Your task to perform on an android device: open app "Reddit" Image 0: 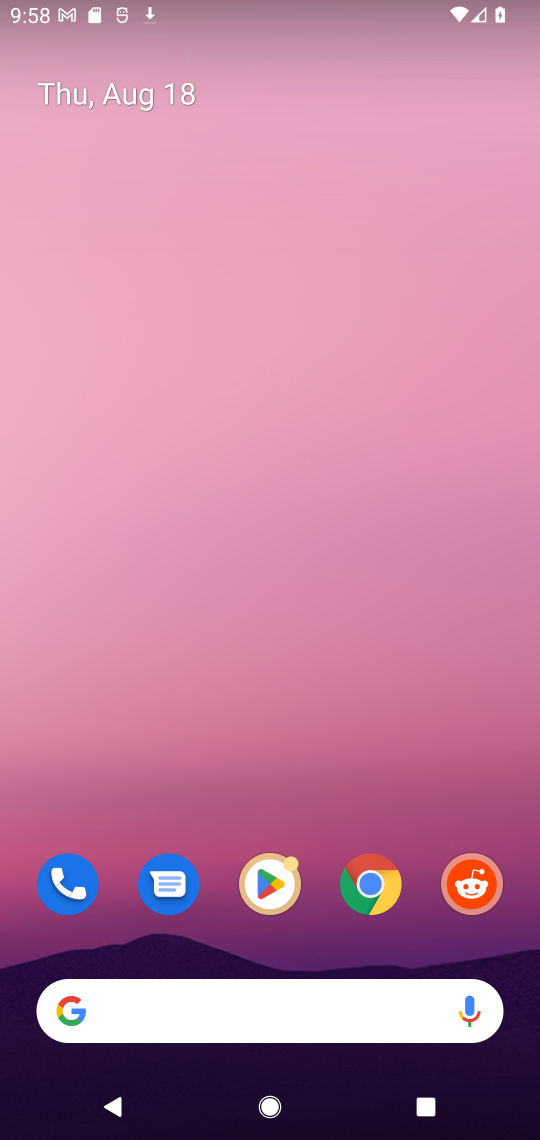
Step 0: click (270, 918)
Your task to perform on an android device: open app "Reddit" Image 1: 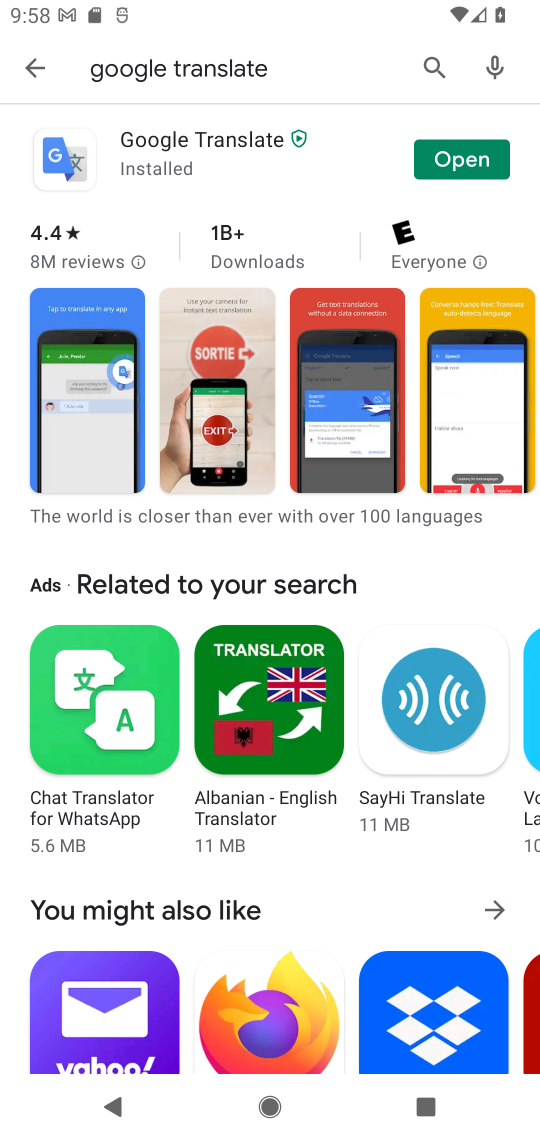
Step 1: click (441, 74)
Your task to perform on an android device: open app "Reddit" Image 2: 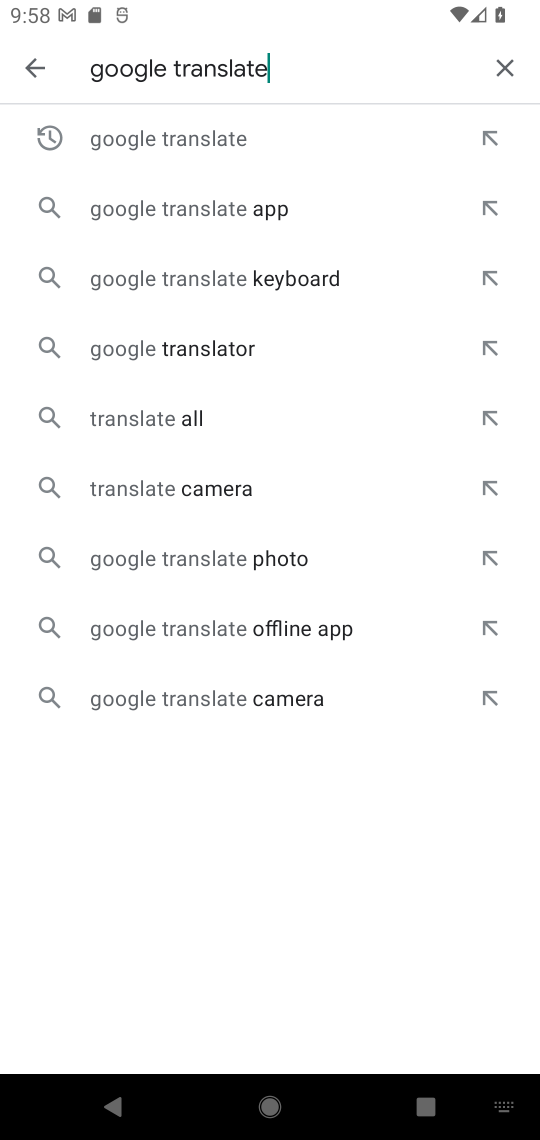
Step 2: click (498, 82)
Your task to perform on an android device: open app "Reddit" Image 3: 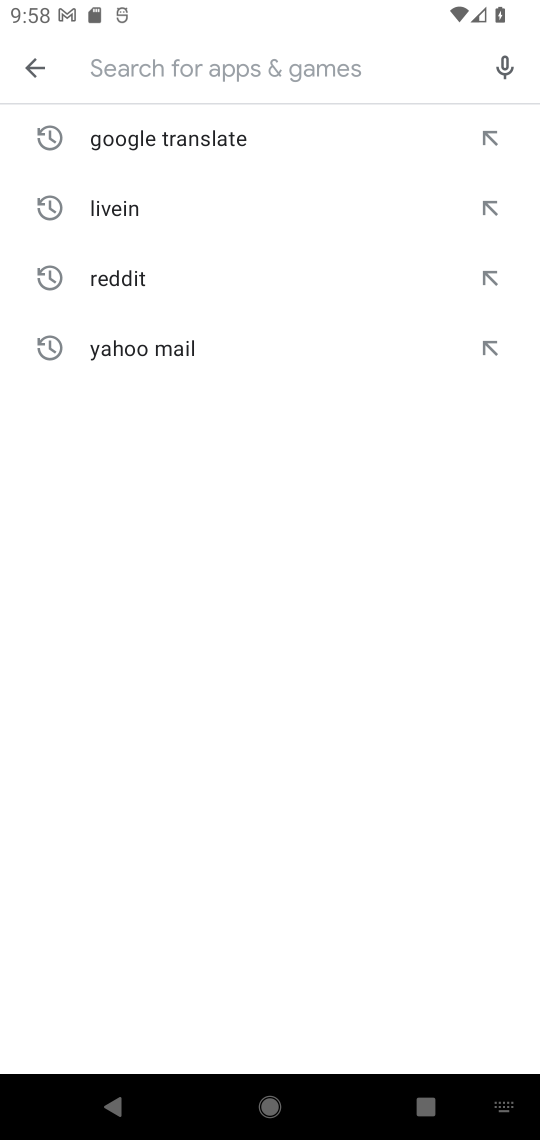
Step 3: type "reddit"
Your task to perform on an android device: open app "Reddit" Image 4: 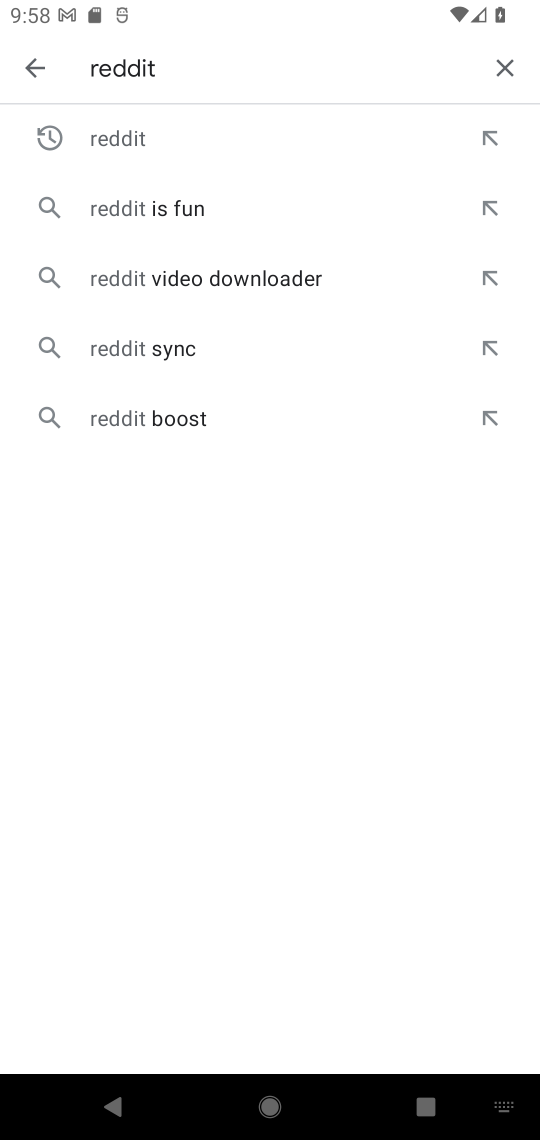
Step 4: click (283, 152)
Your task to perform on an android device: open app "Reddit" Image 5: 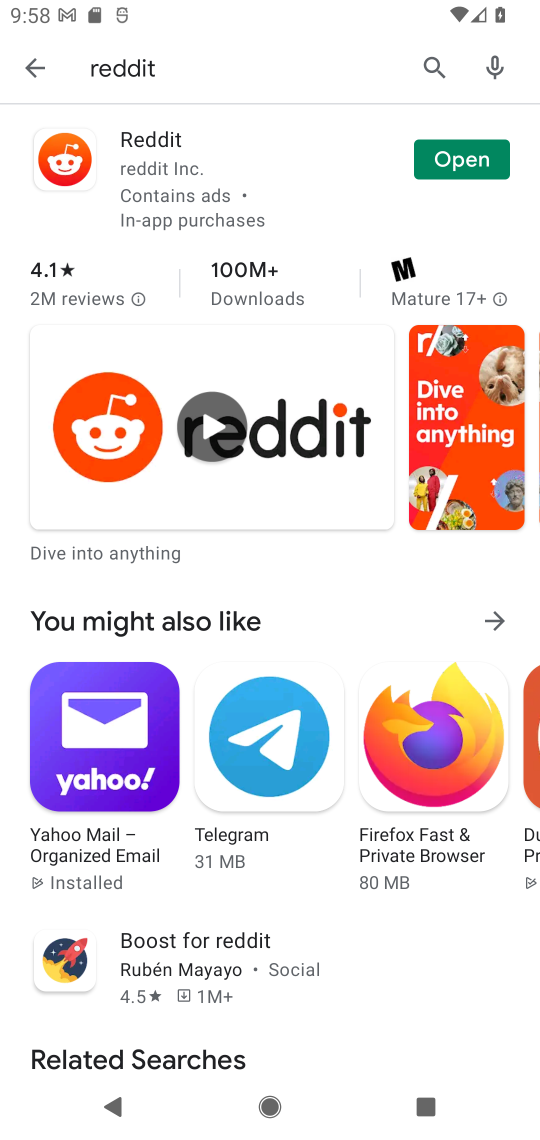
Step 5: click (452, 156)
Your task to perform on an android device: open app "Reddit" Image 6: 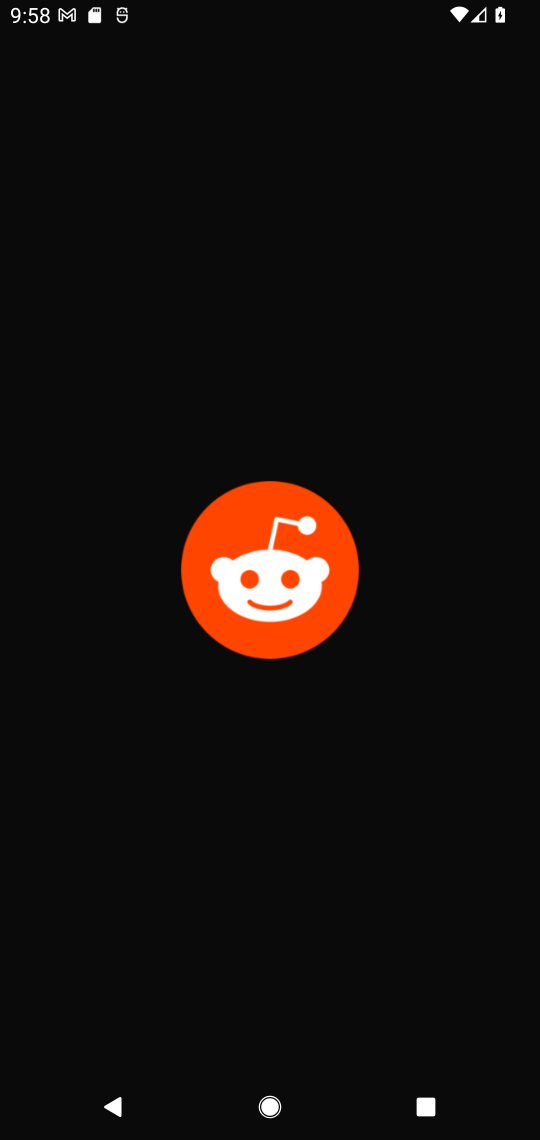
Step 6: task complete